Your task to perform on an android device: Open Chrome and go to settings Image 0: 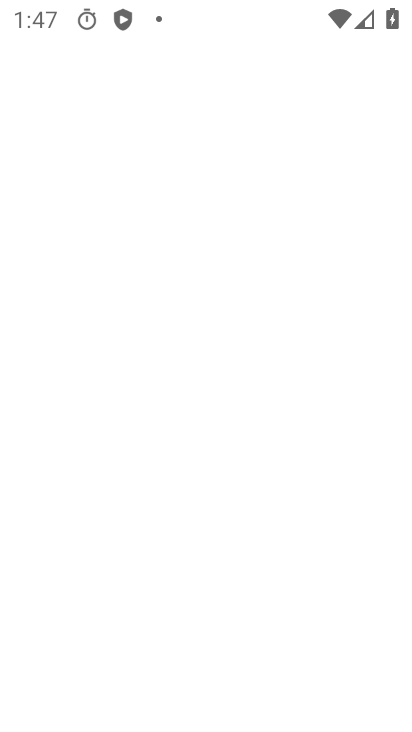
Step 0: click (64, 601)
Your task to perform on an android device: Open Chrome and go to settings Image 1: 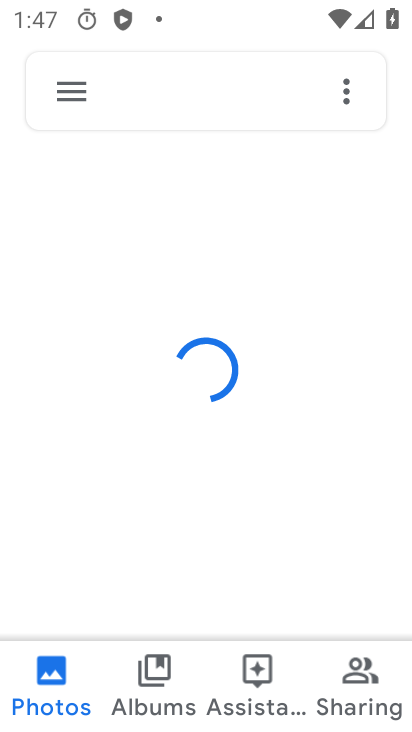
Step 1: press home button
Your task to perform on an android device: Open Chrome and go to settings Image 2: 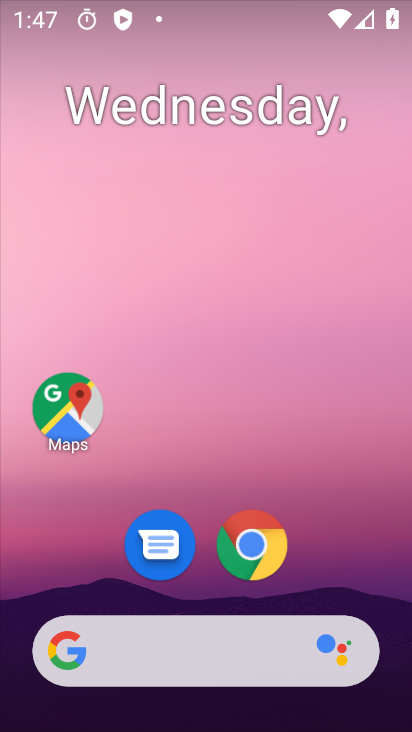
Step 2: click (262, 545)
Your task to perform on an android device: Open Chrome and go to settings Image 3: 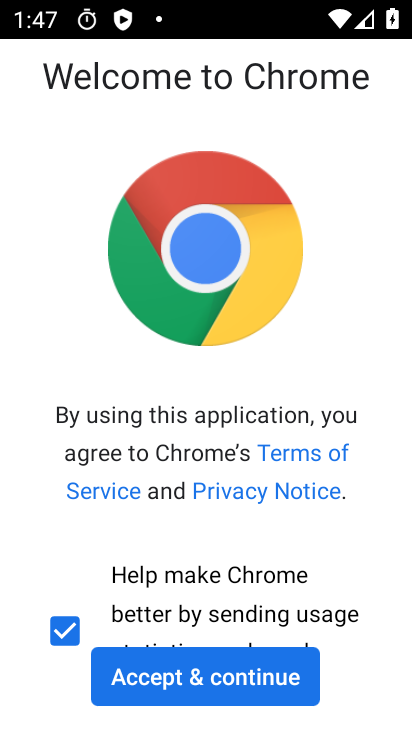
Step 3: click (231, 673)
Your task to perform on an android device: Open Chrome and go to settings Image 4: 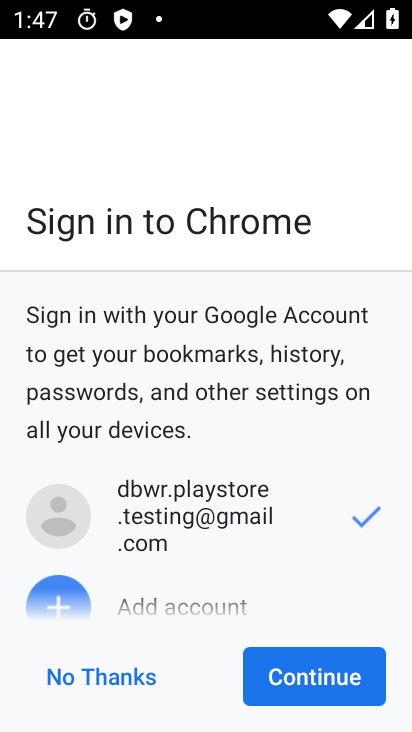
Step 4: click (277, 671)
Your task to perform on an android device: Open Chrome and go to settings Image 5: 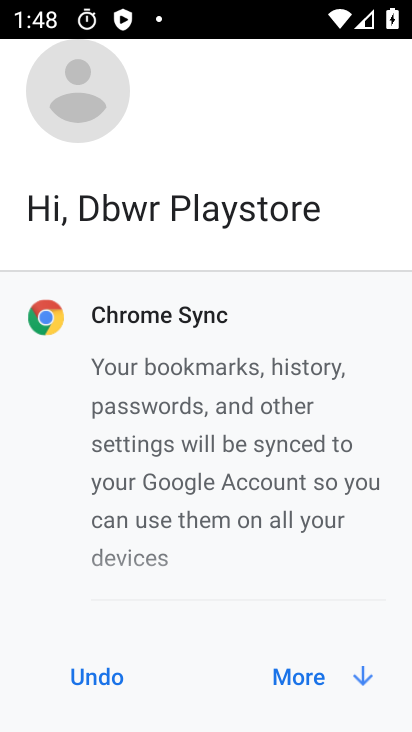
Step 5: click (339, 685)
Your task to perform on an android device: Open Chrome and go to settings Image 6: 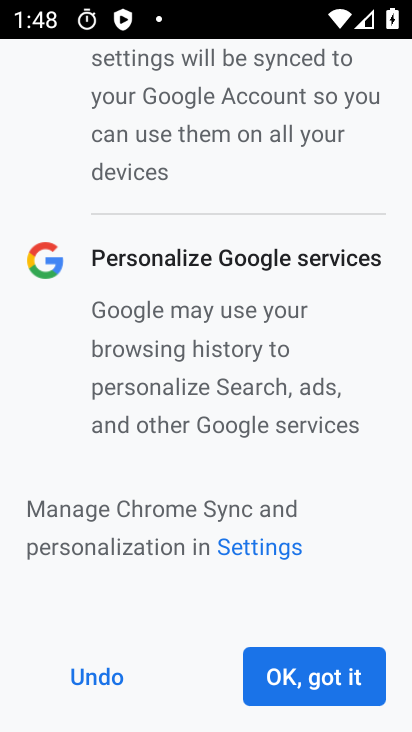
Step 6: click (339, 685)
Your task to perform on an android device: Open Chrome and go to settings Image 7: 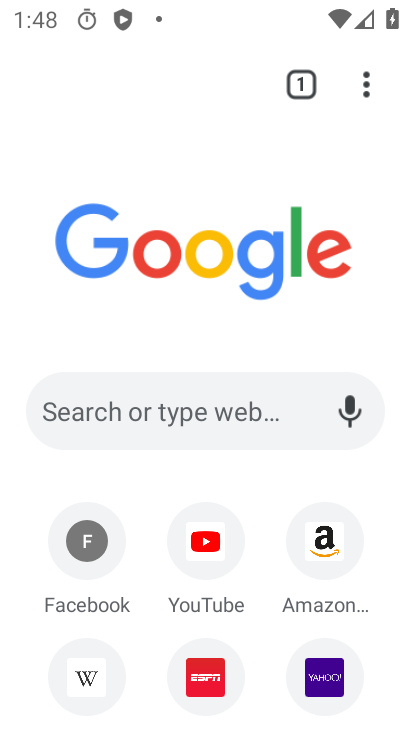
Step 7: task complete